Your task to perform on an android device: change your default location settings in chrome Image 0: 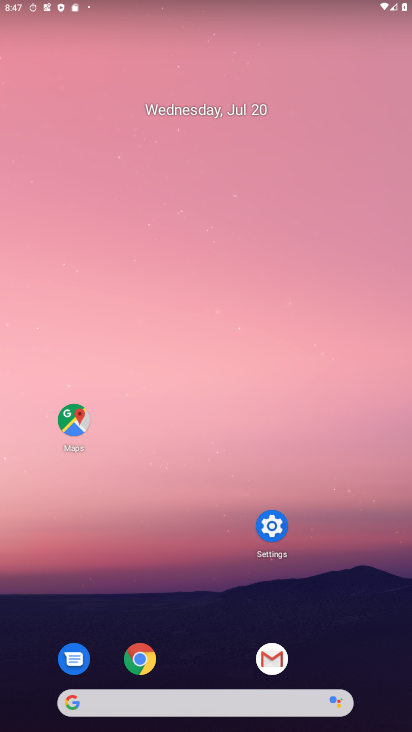
Step 0: press home button
Your task to perform on an android device: change your default location settings in chrome Image 1: 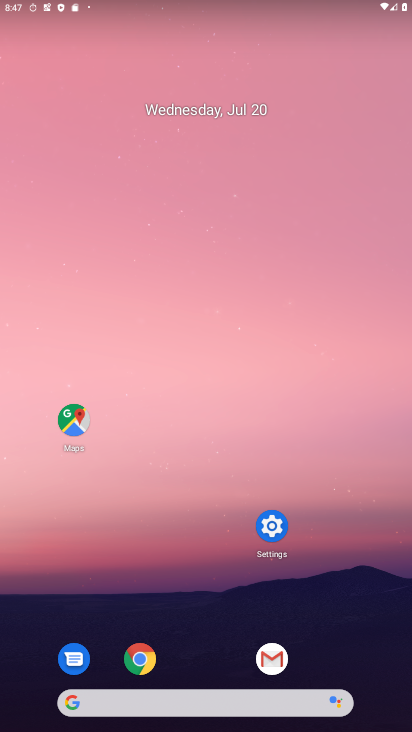
Step 1: click (145, 647)
Your task to perform on an android device: change your default location settings in chrome Image 2: 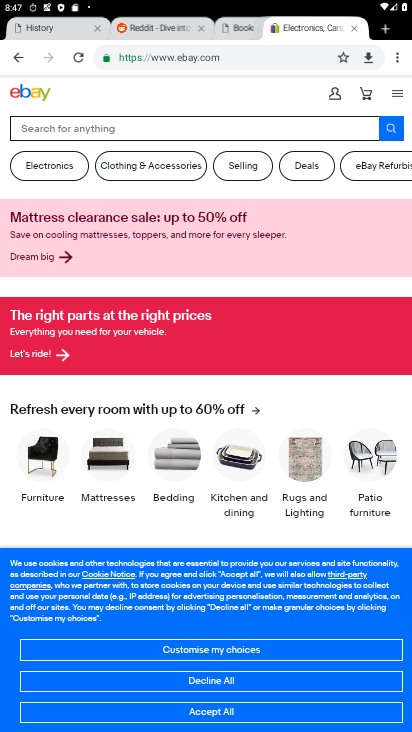
Step 2: click (397, 57)
Your task to perform on an android device: change your default location settings in chrome Image 3: 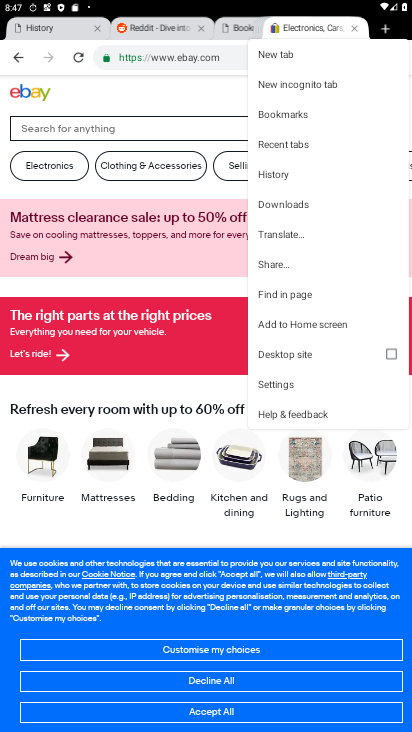
Step 3: click (291, 372)
Your task to perform on an android device: change your default location settings in chrome Image 4: 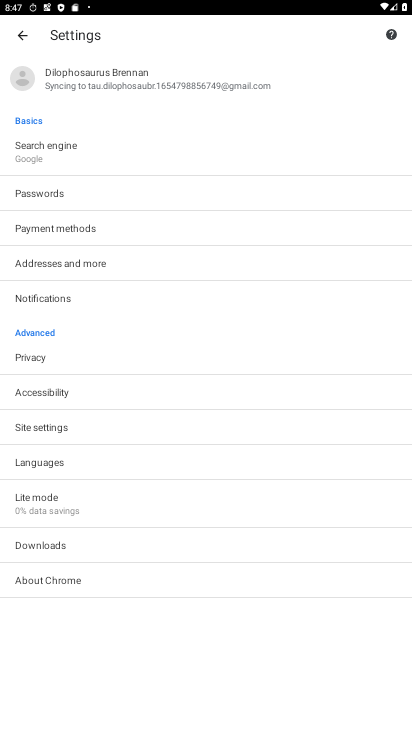
Step 4: click (65, 432)
Your task to perform on an android device: change your default location settings in chrome Image 5: 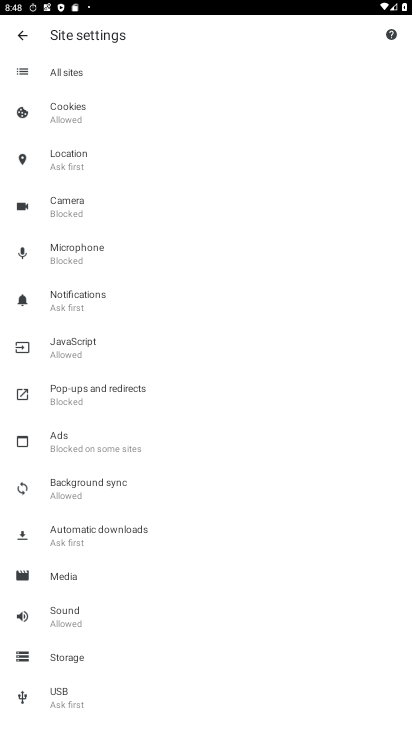
Step 5: click (79, 157)
Your task to perform on an android device: change your default location settings in chrome Image 6: 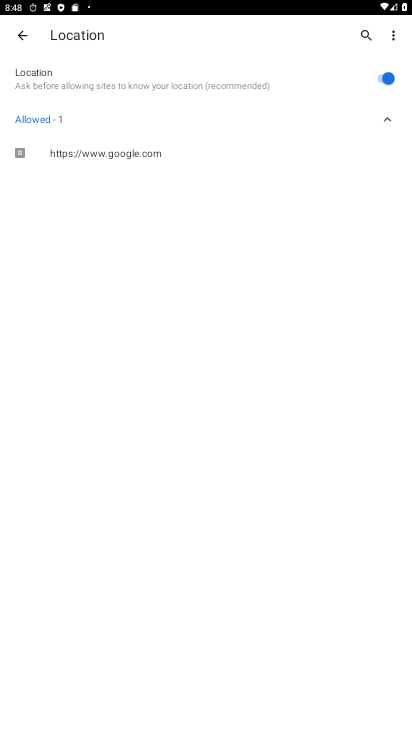
Step 6: click (359, 77)
Your task to perform on an android device: change your default location settings in chrome Image 7: 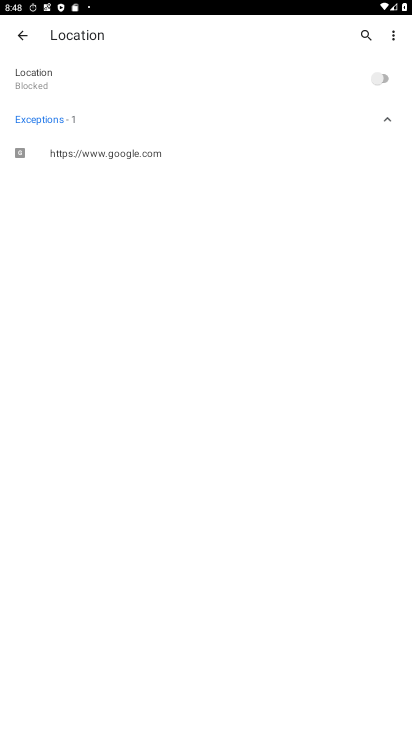
Step 7: click (356, 78)
Your task to perform on an android device: change your default location settings in chrome Image 8: 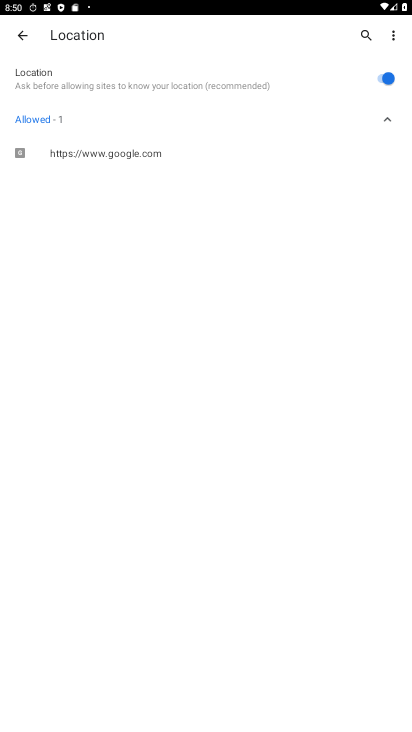
Step 8: task complete